Your task to perform on an android device: Search for the new Nike Air Max 270 on Nike.com Image 0: 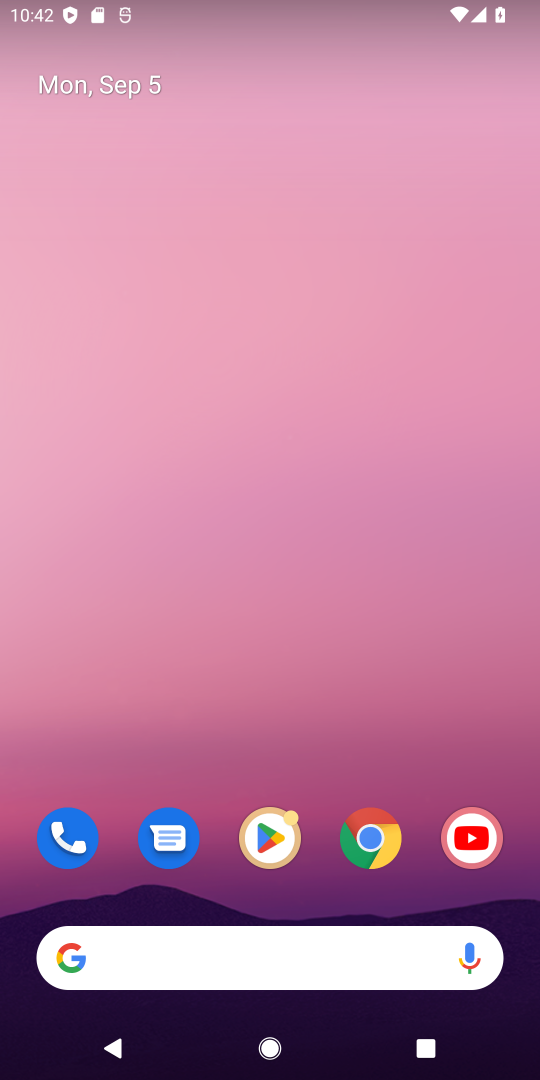
Step 0: click (363, 936)
Your task to perform on an android device: Search for the new Nike Air Max 270 on Nike.com Image 1: 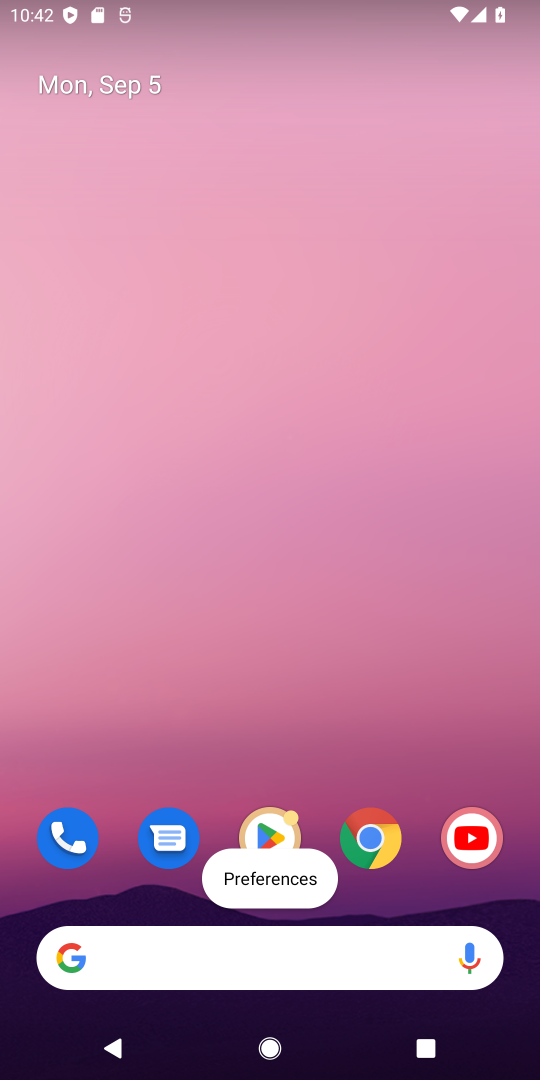
Step 1: click (333, 958)
Your task to perform on an android device: Search for the new Nike Air Max 270 on Nike.com Image 2: 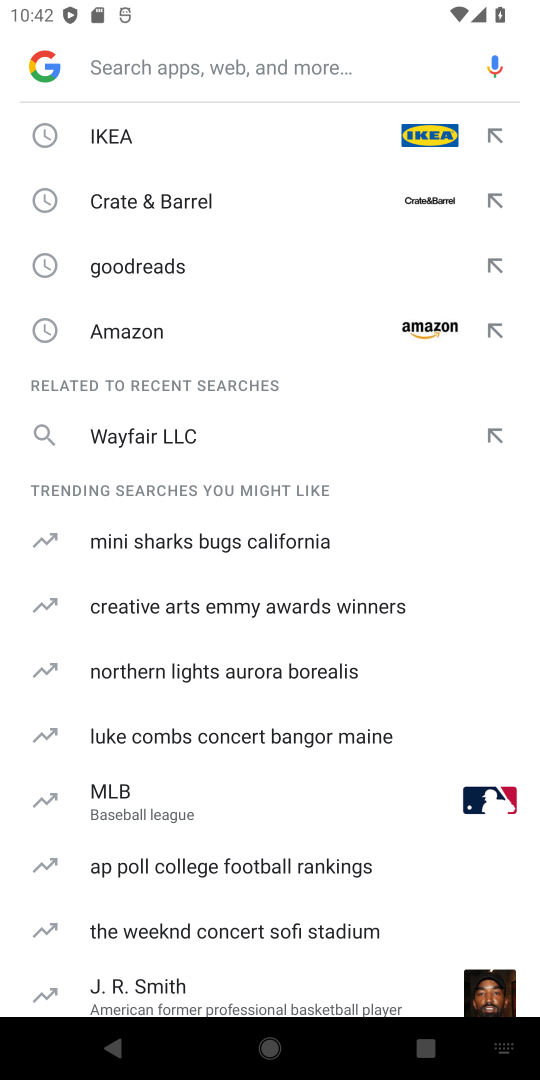
Step 2: type "Nike.com"
Your task to perform on an android device: Search for the new Nike Air Max 270 on Nike.com Image 3: 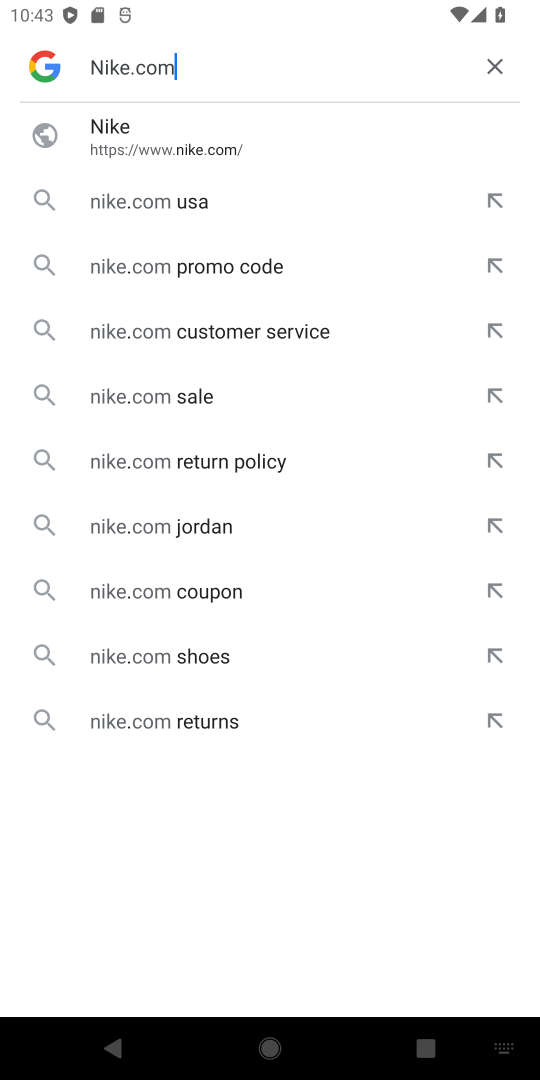
Step 3: click (125, 131)
Your task to perform on an android device: Search for the new Nike Air Max 270 on Nike.com Image 4: 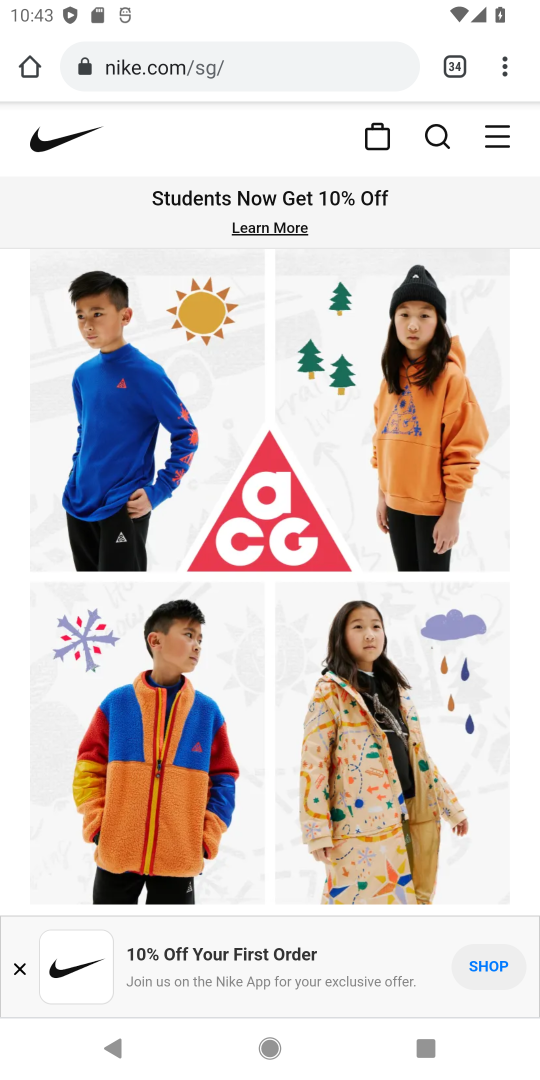
Step 4: click (424, 144)
Your task to perform on an android device: Search for the new Nike Air Max 270 on Nike.com Image 5: 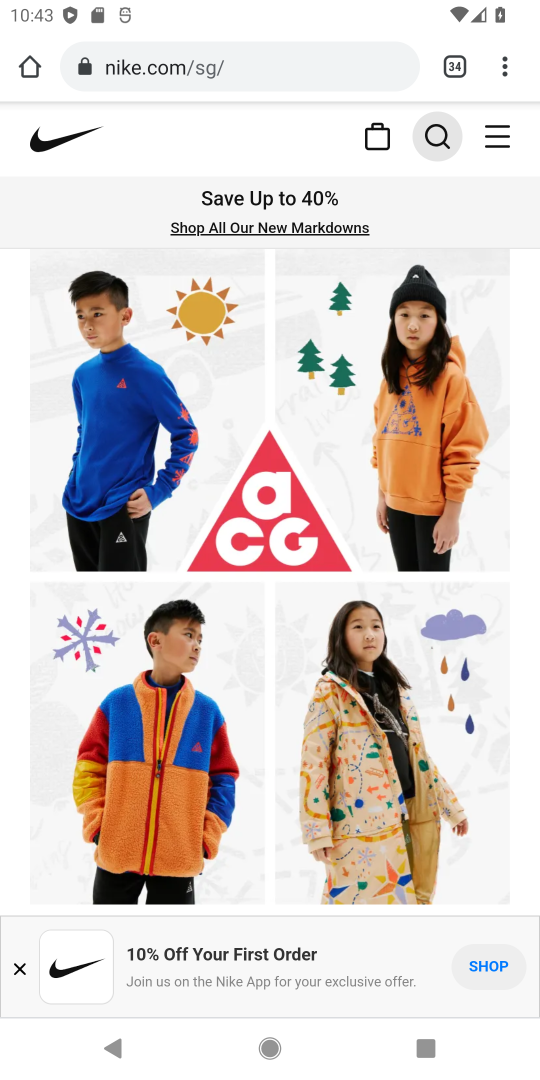
Step 5: click (428, 143)
Your task to perform on an android device: Search for the new Nike Air Max 270 on Nike.com Image 6: 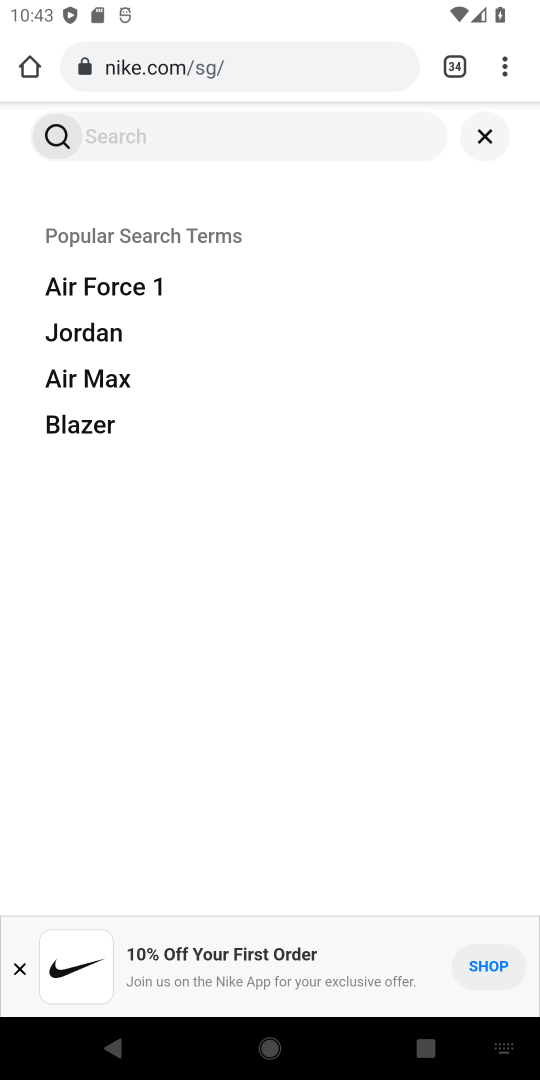
Step 6: click (210, 143)
Your task to perform on an android device: Search for the new Nike Air Max 270 on Nike.com Image 7: 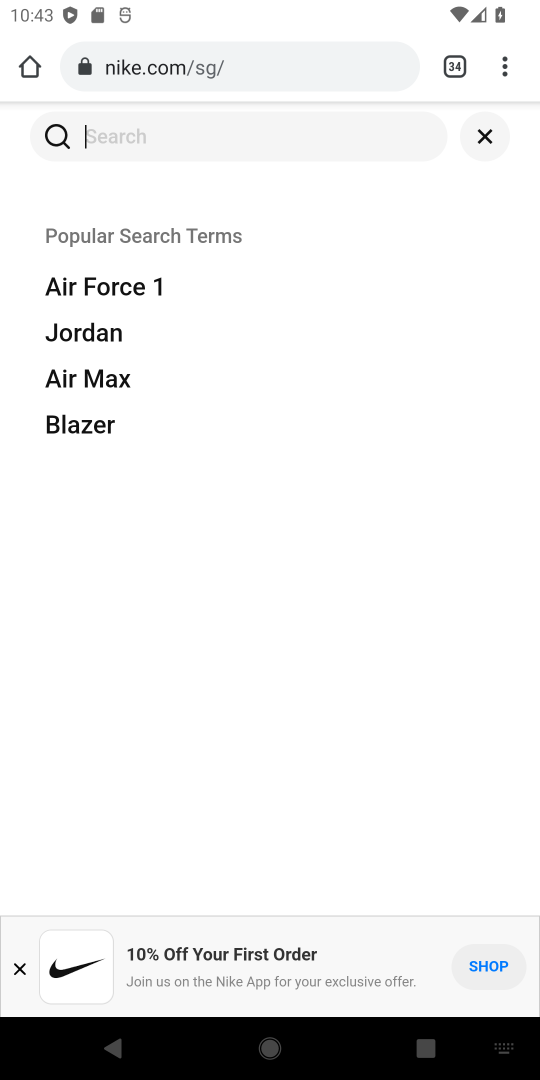
Step 7: type "Nike Air Max 270"
Your task to perform on an android device: Search for the new Nike Air Max 270 on Nike.com Image 8: 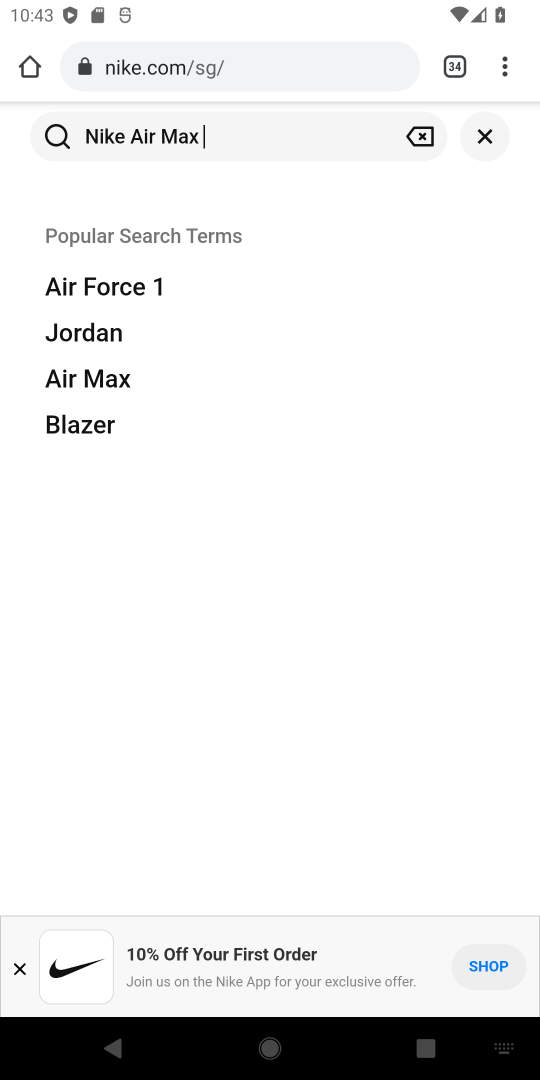
Step 8: type ""
Your task to perform on an android device: Search for the new Nike Air Max 270 on Nike.com Image 9: 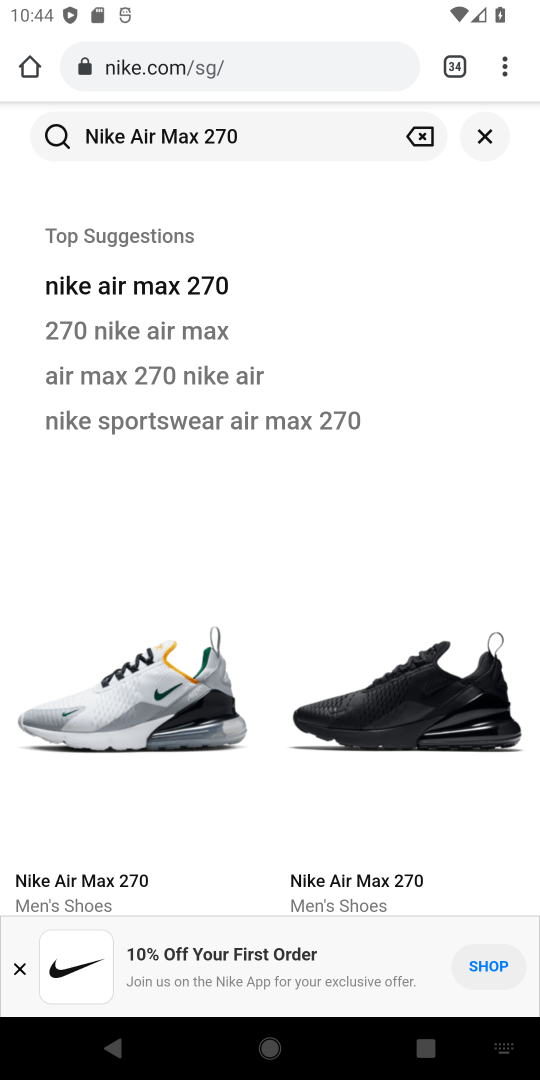
Step 9: click (254, 276)
Your task to perform on an android device: Search for the new Nike Air Max 270 on Nike.com Image 10: 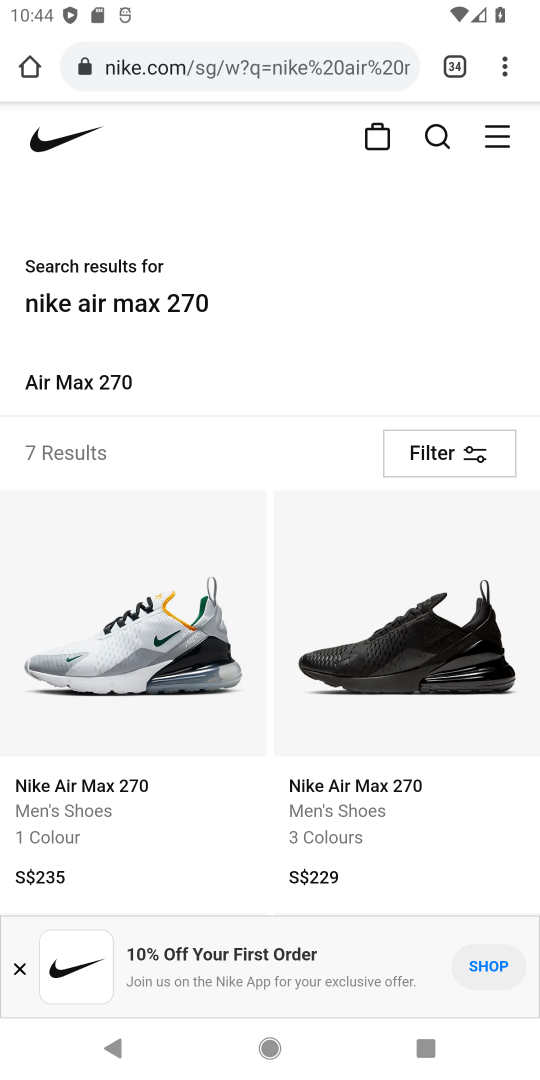
Step 10: task complete